Your task to perform on an android device: Toggle the flashlight Image 0: 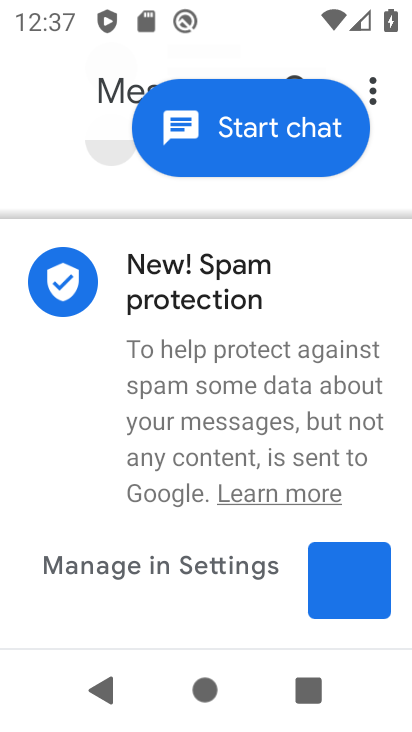
Step 0: press home button
Your task to perform on an android device: Toggle the flashlight Image 1: 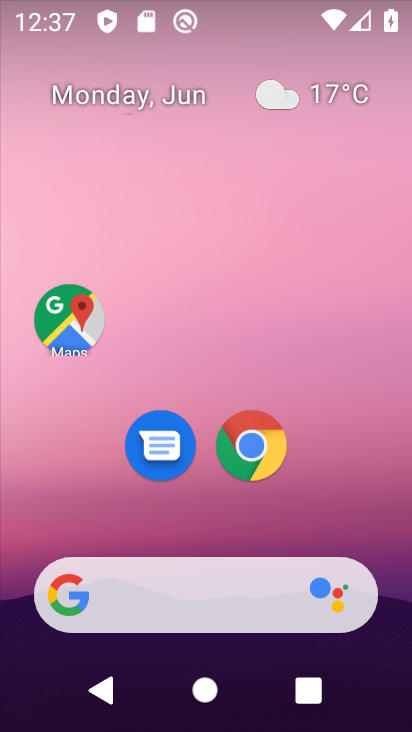
Step 1: drag from (310, 424) to (310, 24)
Your task to perform on an android device: Toggle the flashlight Image 2: 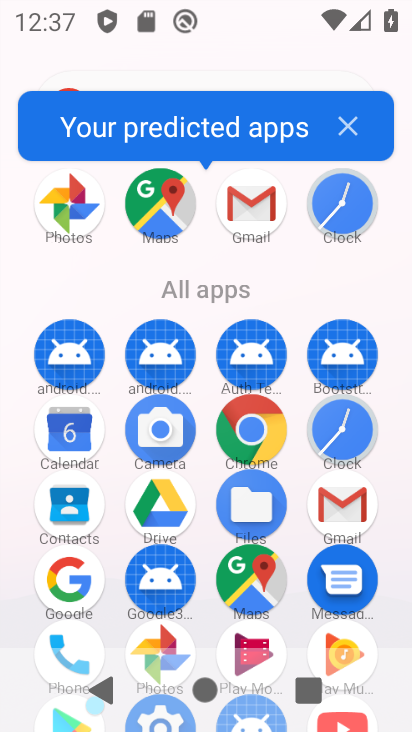
Step 2: drag from (203, 620) to (188, 193)
Your task to perform on an android device: Toggle the flashlight Image 3: 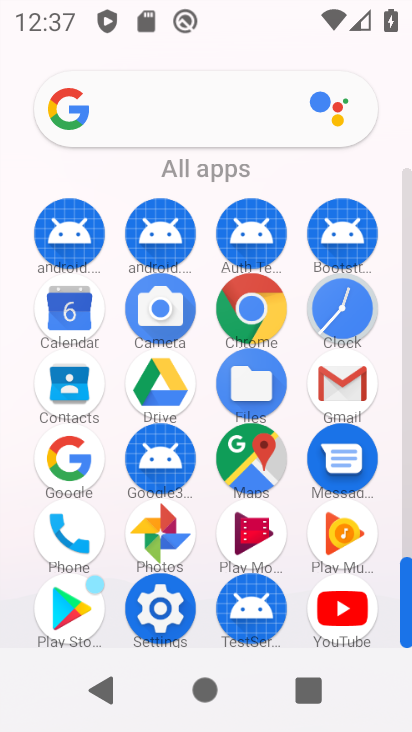
Step 3: click (150, 600)
Your task to perform on an android device: Toggle the flashlight Image 4: 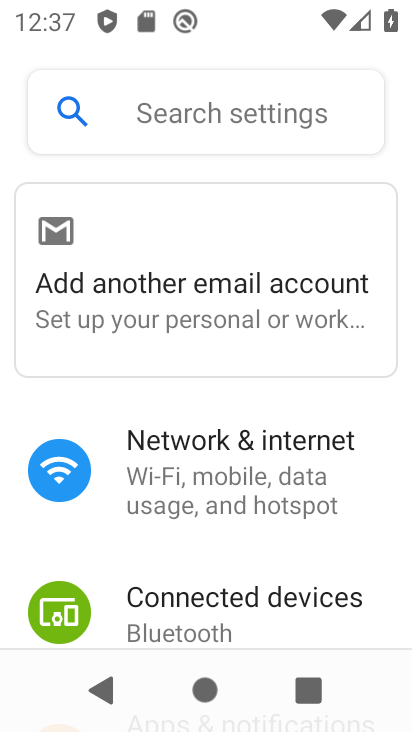
Step 4: task complete